Your task to perform on an android device: Open my contact list Image 0: 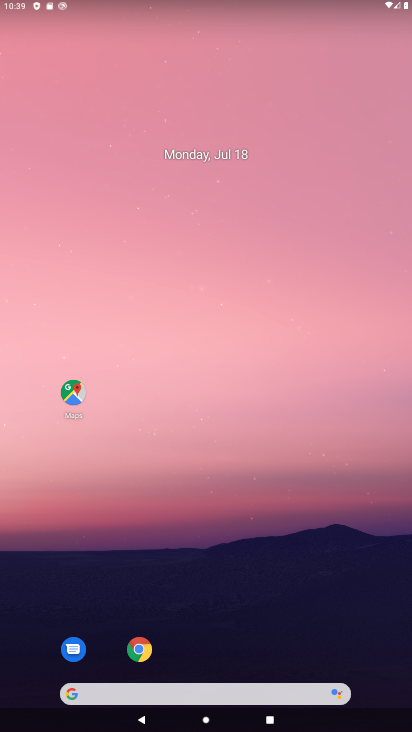
Step 0: drag from (204, 657) to (294, 77)
Your task to perform on an android device: Open my contact list Image 1: 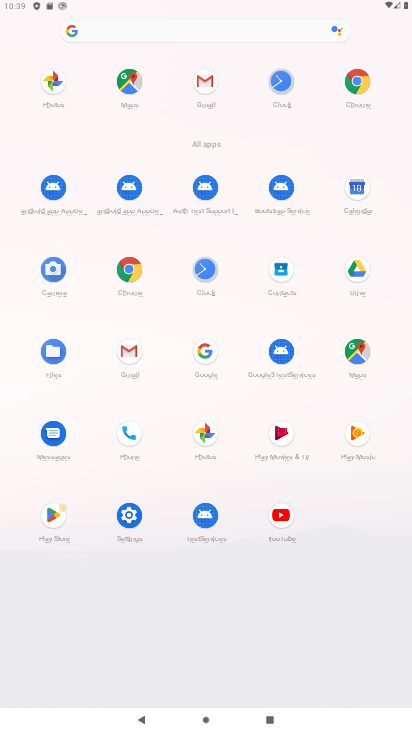
Step 1: click (271, 271)
Your task to perform on an android device: Open my contact list Image 2: 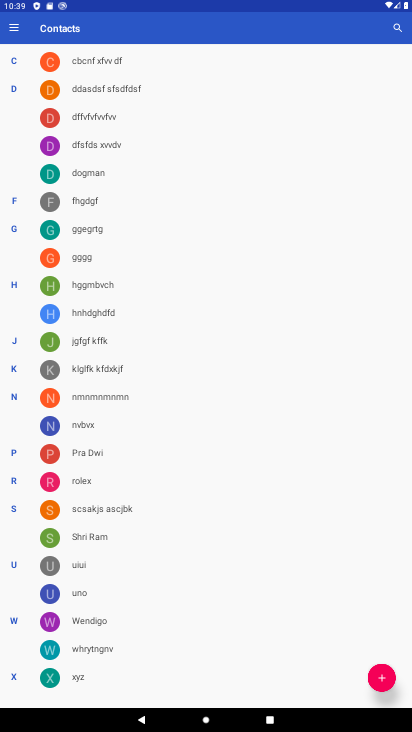
Step 2: task complete